Your task to perform on an android device: Show me the alarms in the clock app Image 0: 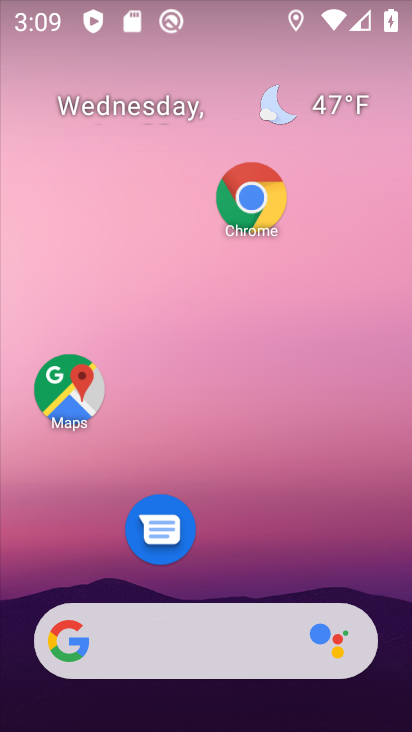
Step 0: drag from (260, 547) to (211, 77)
Your task to perform on an android device: Show me the alarms in the clock app Image 1: 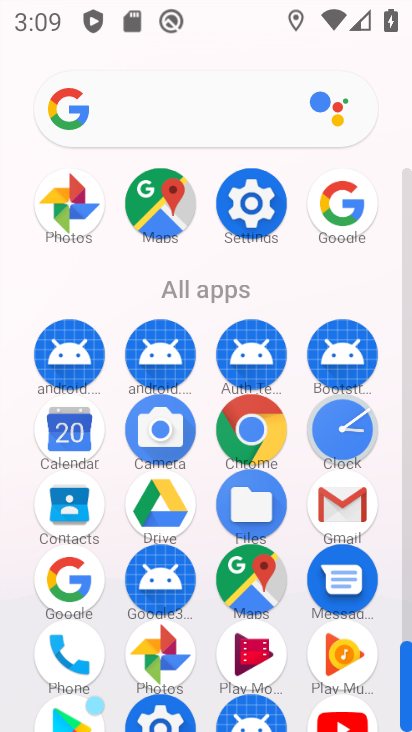
Step 1: click (352, 436)
Your task to perform on an android device: Show me the alarms in the clock app Image 2: 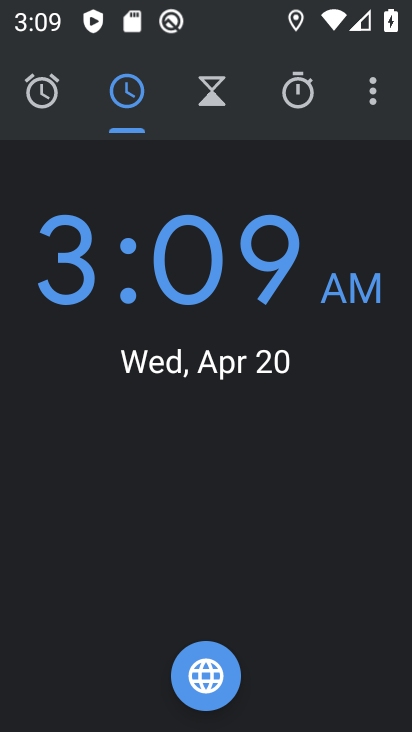
Step 2: click (42, 99)
Your task to perform on an android device: Show me the alarms in the clock app Image 3: 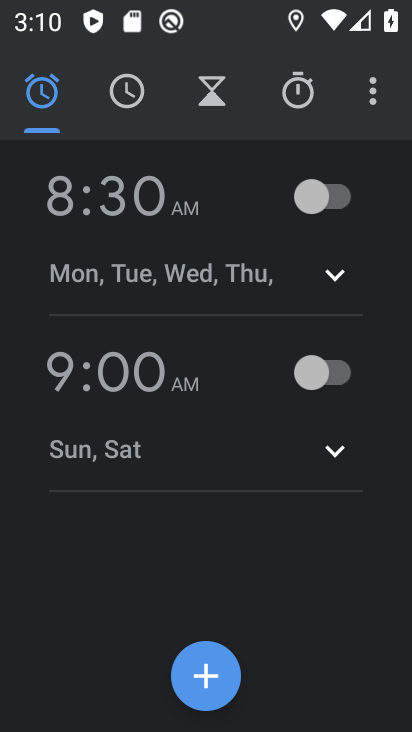
Step 3: task complete